Your task to perform on an android device: open app "LinkedIn" (install if not already installed) Image 0: 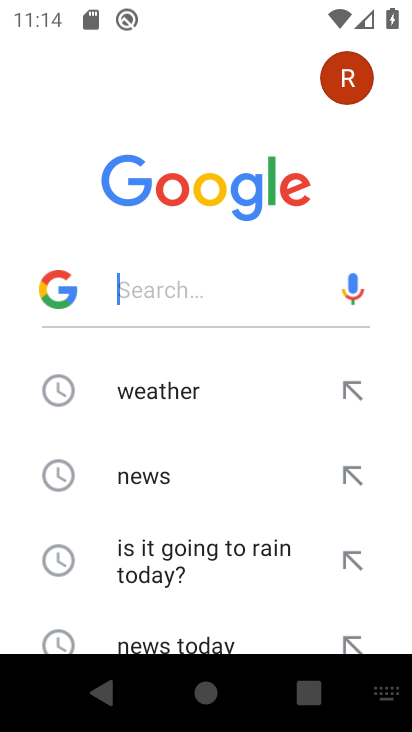
Step 0: press home button
Your task to perform on an android device: open app "LinkedIn" (install if not already installed) Image 1: 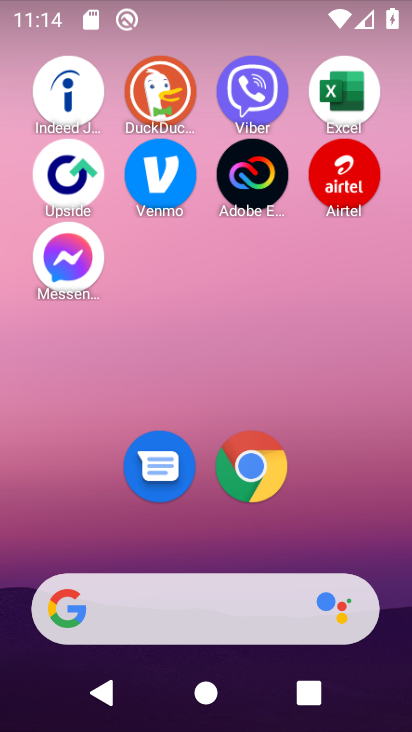
Step 1: drag from (235, 727) to (232, 80)
Your task to perform on an android device: open app "LinkedIn" (install if not already installed) Image 2: 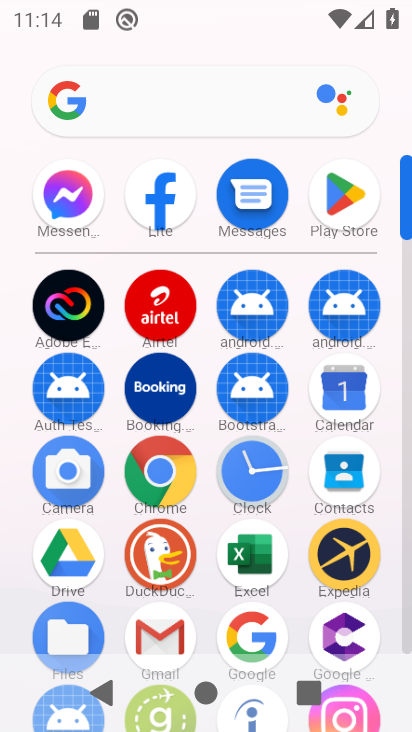
Step 2: click (349, 204)
Your task to perform on an android device: open app "LinkedIn" (install if not already installed) Image 3: 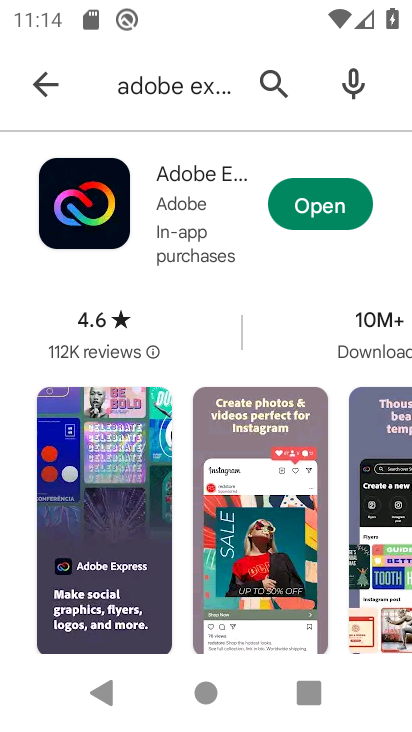
Step 3: click (265, 79)
Your task to perform on an android device: open app "LinkedIn" (install if not already installed) Image 4: 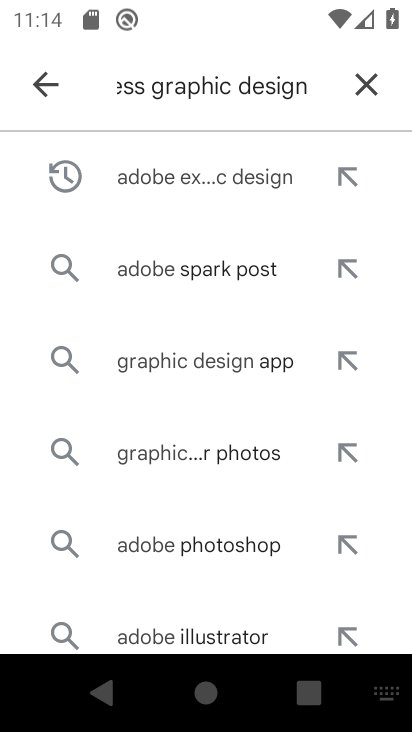
Step 4: click (365, 79)
Your task to perform on an android device: open app "LinkedIn" (install if not already installed) Image 5: 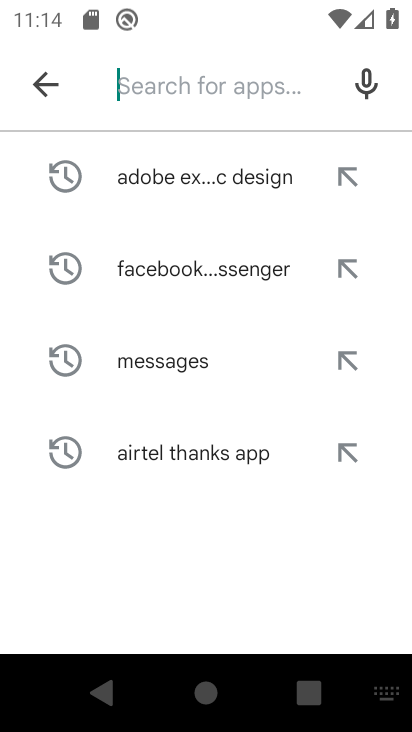
Step 5: type "LinkedIn"
Your task to perform on an android device: open app "LinkedIn" (install if not already installed) Image 6: 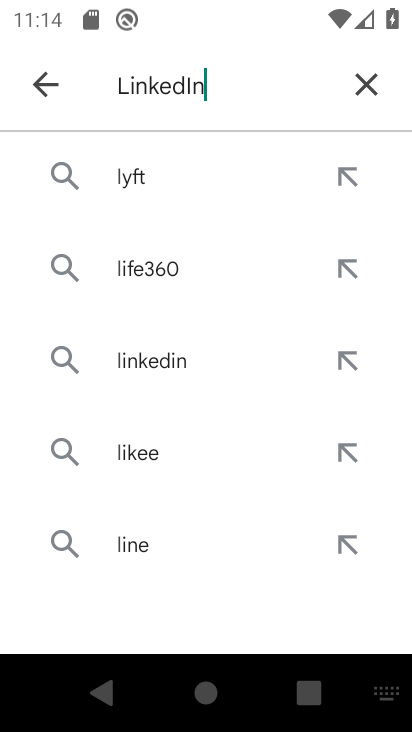
Step 6: type ""
Your task to perform on an android device: open app "LinkedIn" (install if not already installed) Image 7: 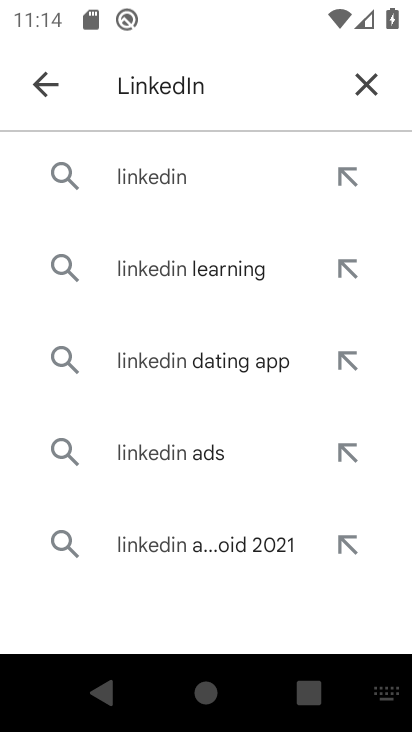
Step 7: click (150, 179)
Your task to perform on an android device: open app "LinkedIn" (install if not already installed) Image 8: 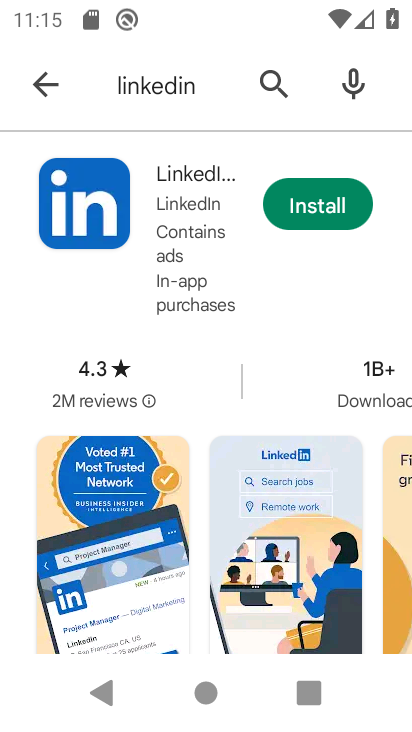
Step 8: click (333, 208)
Your task to perform on an android device: open app "LinkedIn" (install if not already installed) Image 9: 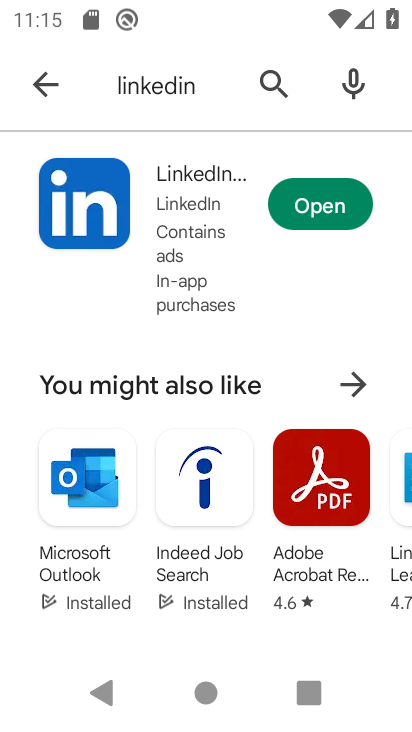
Step 9: click (321, 210)
Your task to perform on an android device: open app "LinkedIn" (install if not already installed) Image 10: 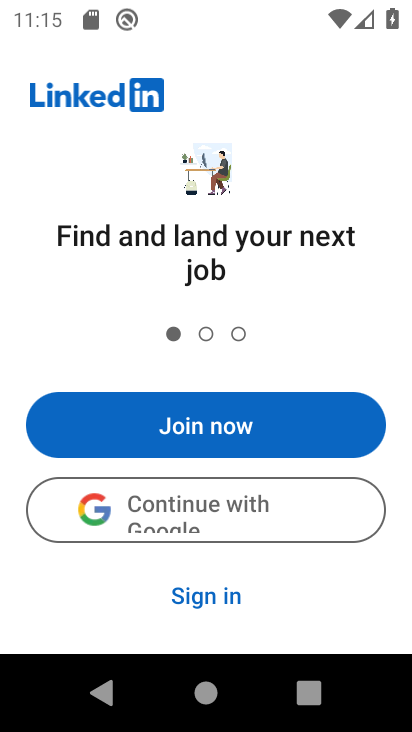
Step 10: task complete